Your task to perform on an android device: Open Youtube and go to the subscriptions tab Image 0: 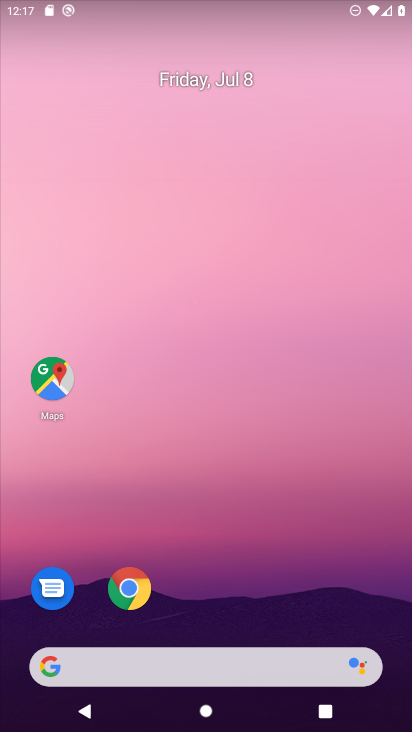
Step 0: press home button
Your task to perform on an android device: Open Youtube and go to the subscriptions tab Image 1: 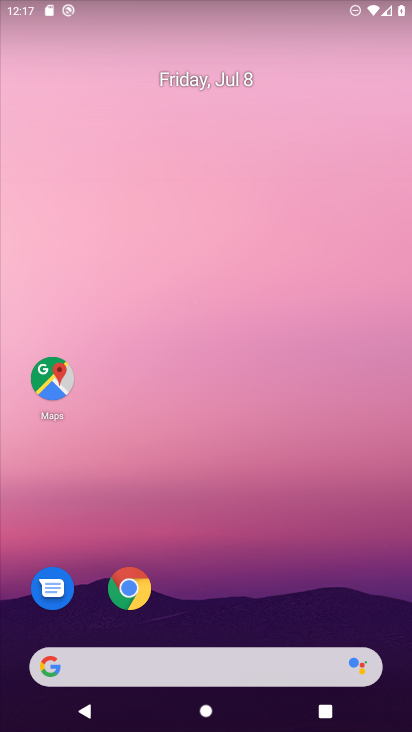
Step 1: drag from (248, 592) to (265, 10)
Your task to perform on an android device: Open Youtube and go to the subscriptions tab Image 2: 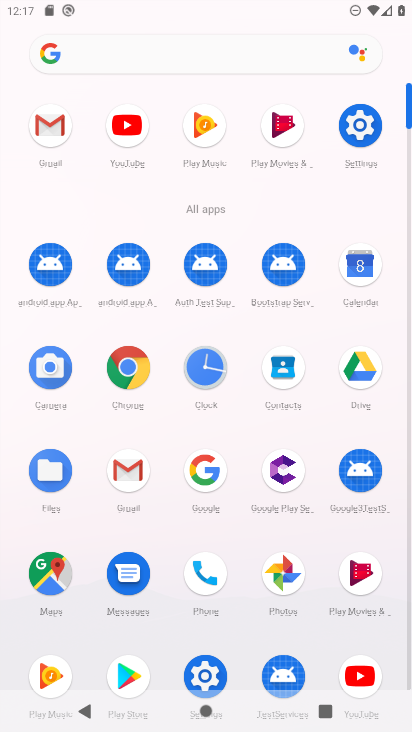
Step 2: click (127, 131)
Your task to perform on an android device: Open Youtube and go to the subscriptions tab Image 3: 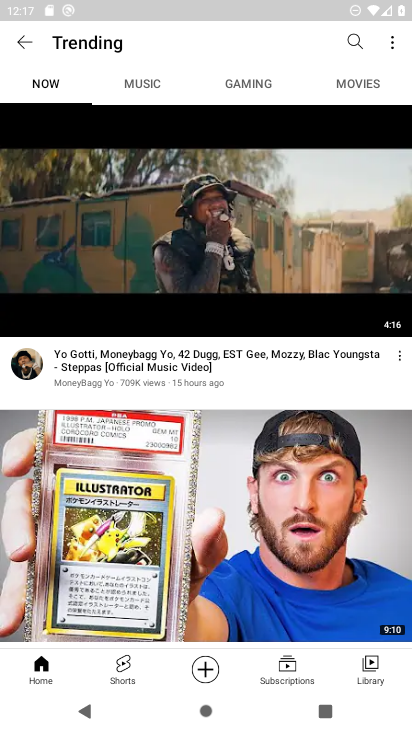
Step 3: click (282, 665)
Your task to perform on an android device: Open Youtube and go to the subscriptions tab Image 4: 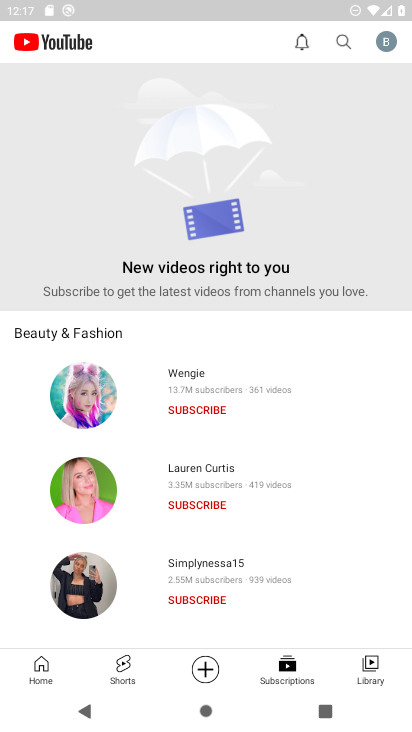
Step 4: task complete